Your task to perform on an android device: turn on the 24-hour format for clock Image 0: 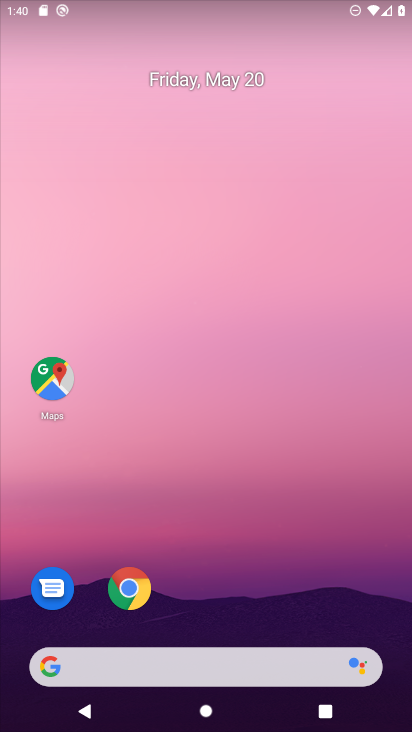
Step 0: drag from (386, 620) to (305, 116)
Your task to perform on an android device: turn on the 24-hour format for clock Image 1: 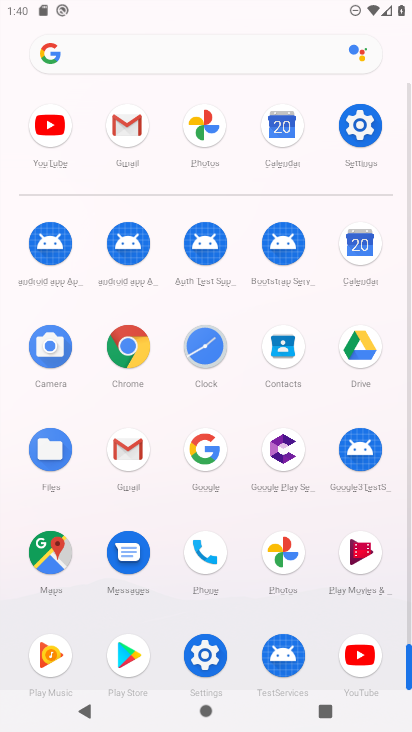
Step 1: click (203, 344)
Your task to perform on an android device: turn on the 24-hour format for clock Image 2: 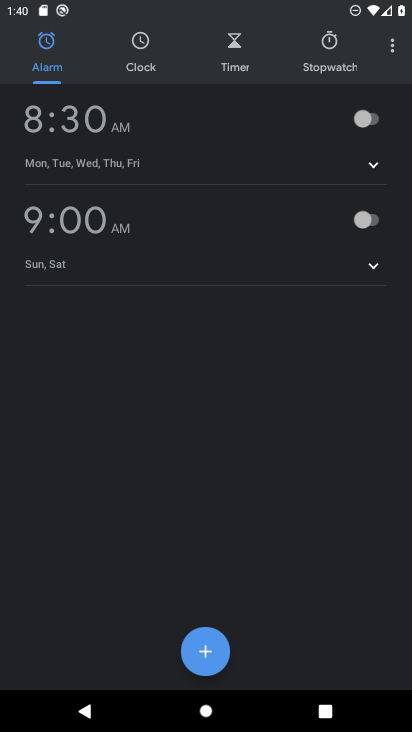
Step 2: click (389, 51)
Your task to perform on an android device: turn on the 24-hour format for clock Image 3: 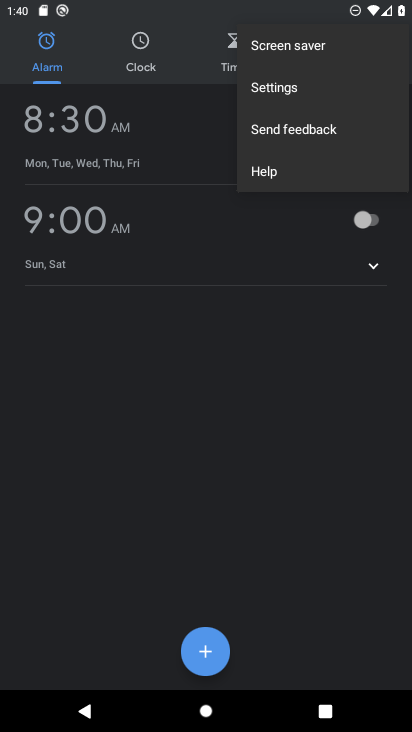
Step 3: click (274, 89)
Your task to perform on an android device: turn on the 24-hour format for clock Image 4: 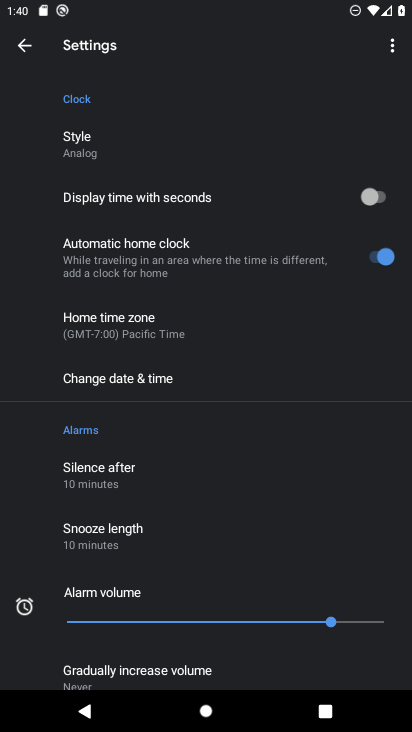
Step 4: click (127, 390)
Your task to perform on an android device: turn on the 24-hour format for clock Image 5: 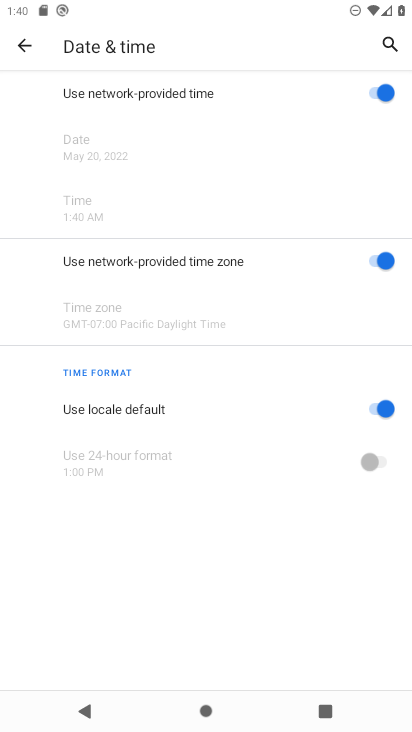
Step 5: click (372, 462)
Your task to perform on an android device: turn on the 24-hour format for clock Image 6: 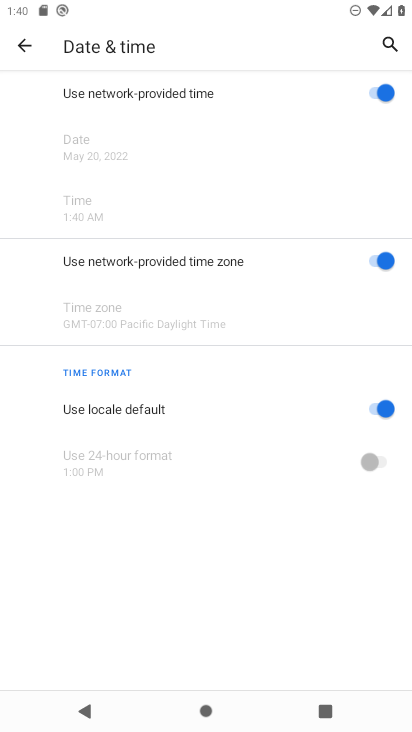
Step 6: click (369, 406)
Your task to perform on an android device: turn on the 24-hour format for clock Image 7: 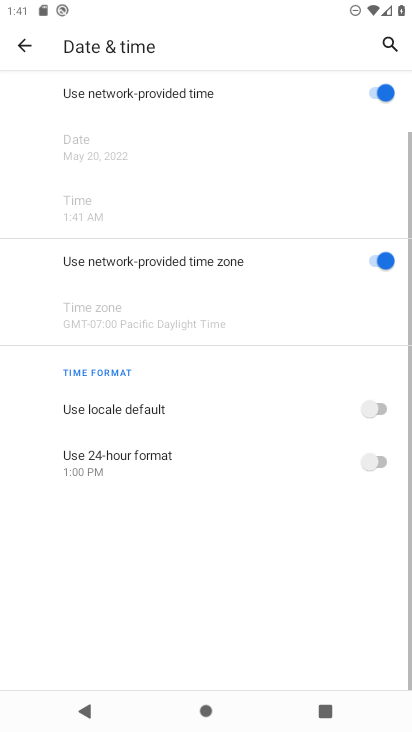
Step 7: click (380, 459)
Your task to perform on an android device: turn on the 24-hour format for clock Image 8: 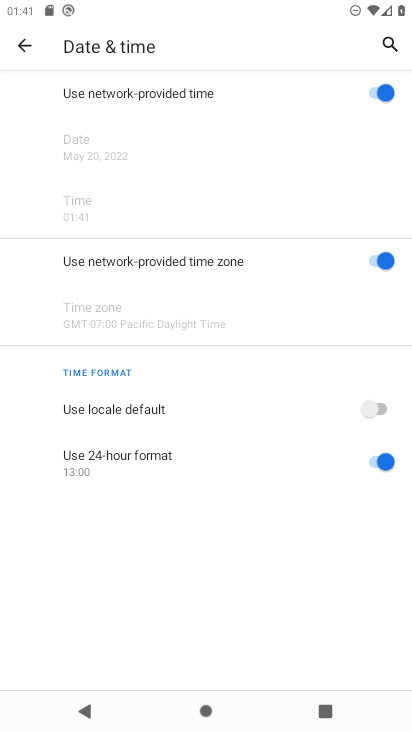
Step 8: task complete